Your task to perform on an android device: Open Maps and search for coffee Image 0: 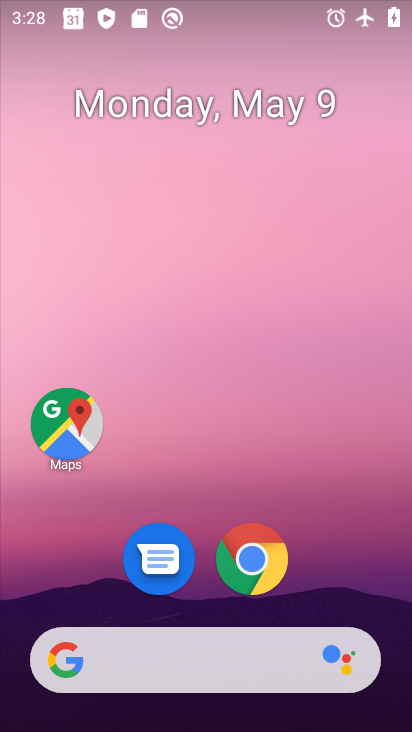
Step 0: drag from (216, 727) to (213, 272)
Your task to perform on an android device: Open Maps and search for coffee Image 1: 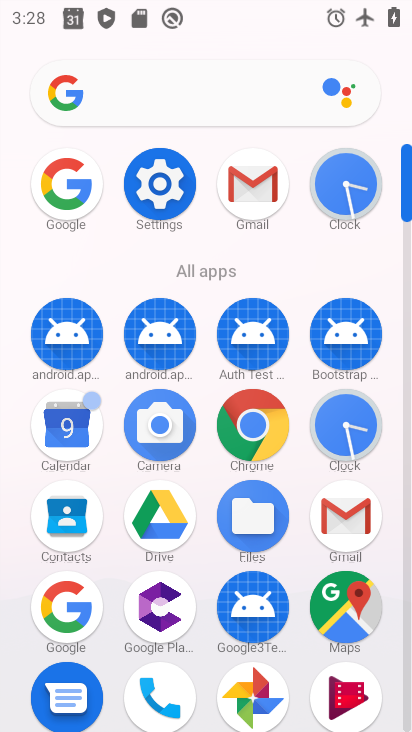
Step 1: click (336, 608)
Your task to perform on an android device: Open Maps and search for coffee Image 2: 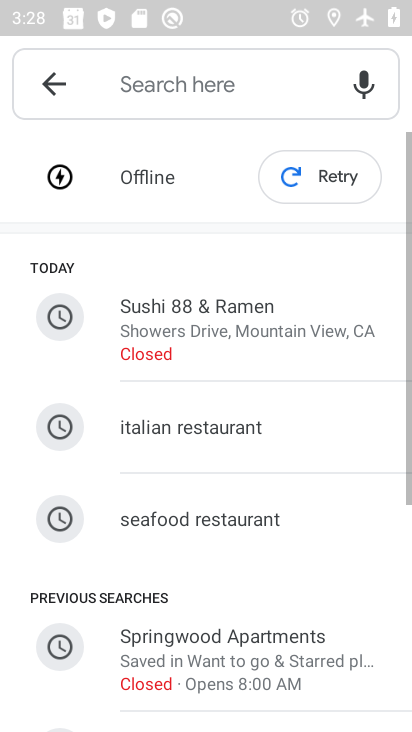
Step 2: click (336, 608)
Your task to perform on an android device: Open Maps and search for coffee Image 3: 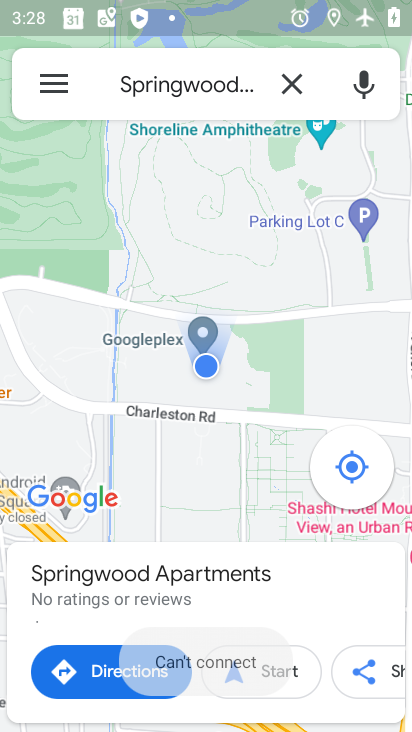
Step 3: click (291, 83)
Your task to perform on an android device: Open Maps and search for coffee Image 4: 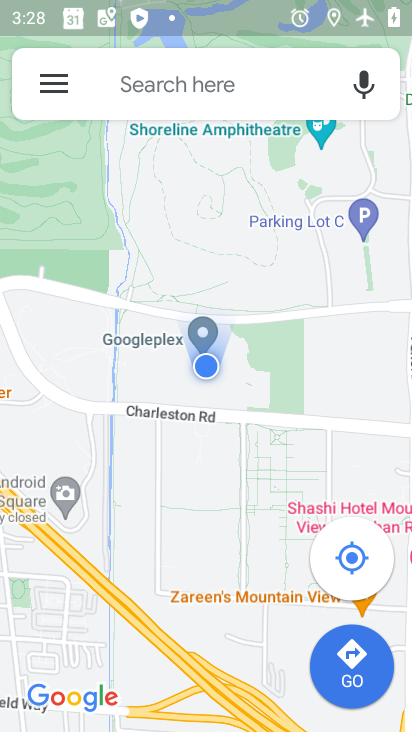
Step 4: click (200, 84)
Your task to perform on an android device: Open Maps and search for coffee Image 5: 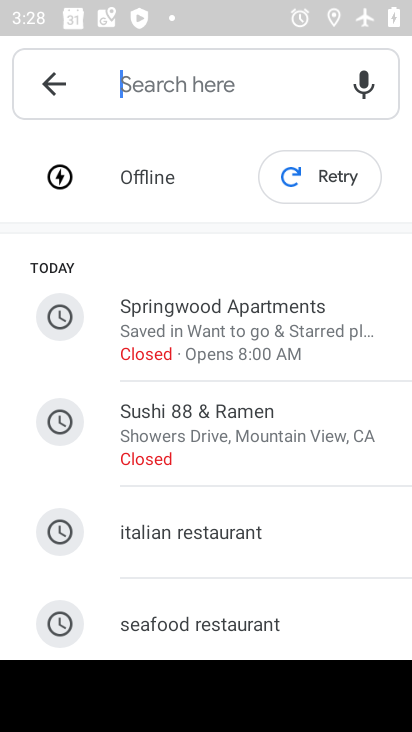
Step 5: type "coffee"
Your task to perform on an android device: Open Maps and search for coffee Image 6: 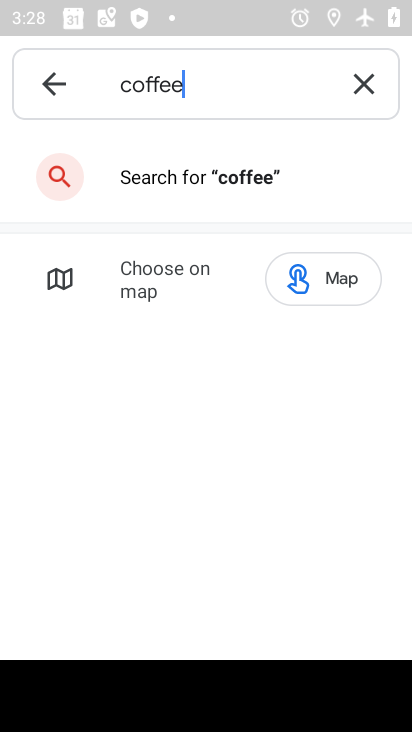
Step 6: click (251, 167)
Your task to perform on an android device: Open Maps and search for coffee Image 7: 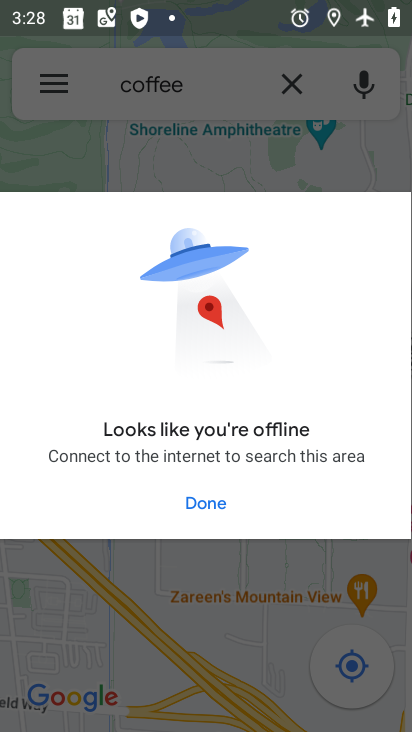
Step 7: task complete